Your task to perform on an android device: Search for "macbook" on newegg, select the first entry, add it to the cart, then select checkout. Image 0: 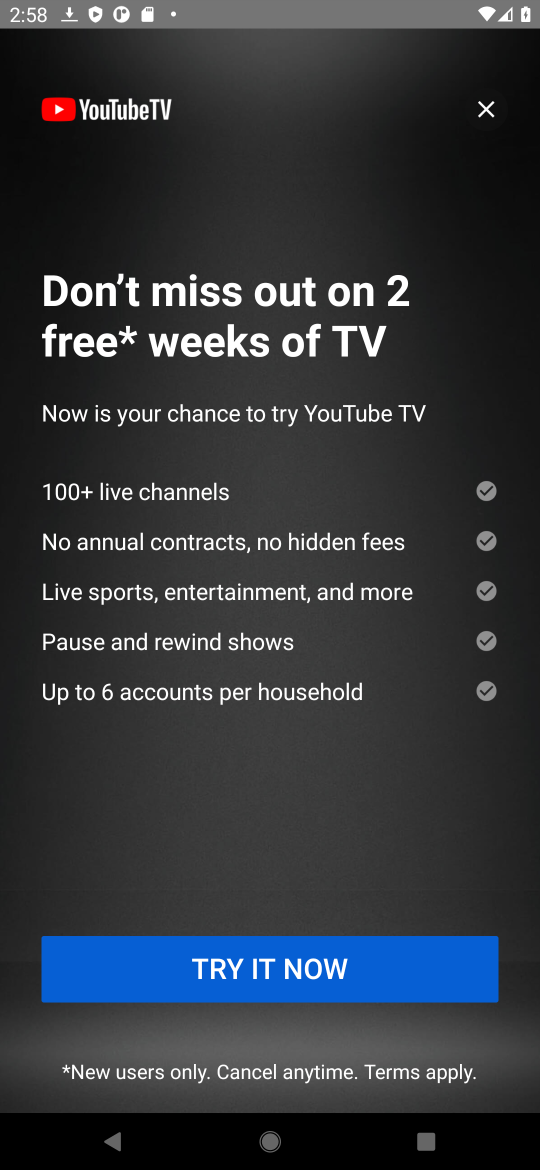
Step 0: press home button
Your task to perform on an android device: Search for "macbook" on newegg, select the first entry, add it to the cart, then select checkout. Image 1: 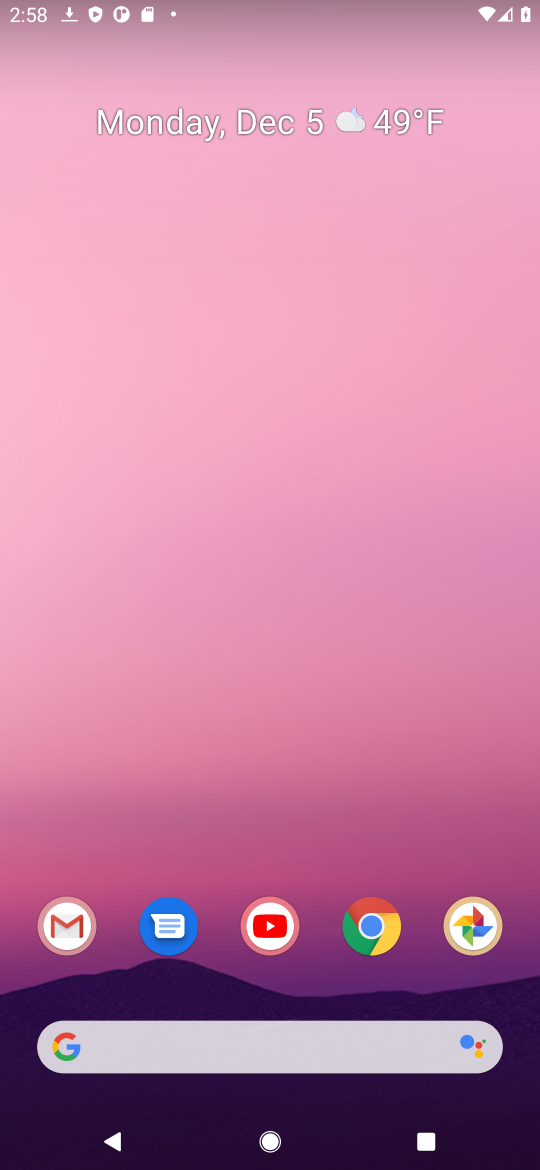
Step 1: click (378, 921)
Your task to perform on an android device: Search for "macbook" on newegg, select the first entry, add it to the cart, then select checkout. Image 2: 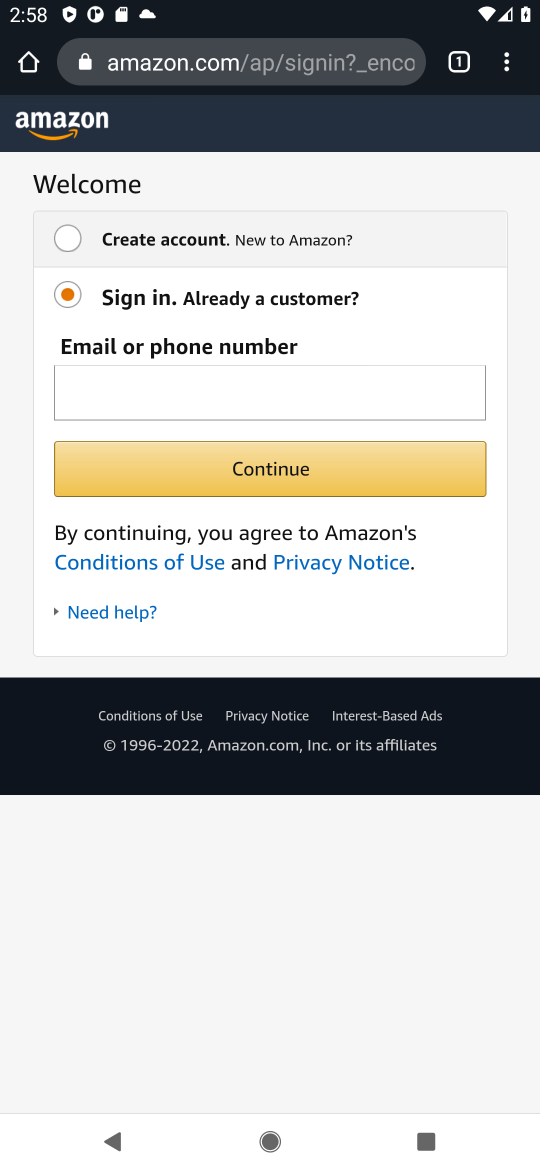
Step 2: click (283, 58)
Your task to perform on an android device: Search for "macbook" on newegg, select the first entry, add it to the cart, then select checkout. Image 3: 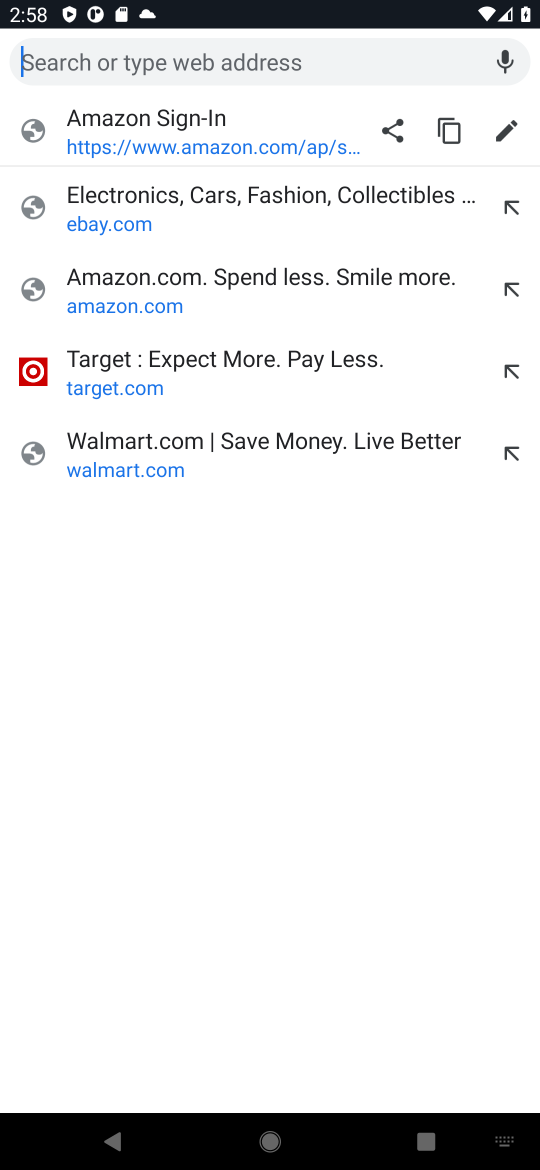
Step 3: type "newegg"
Your task to perform on an android device: Search for "macbook" on newegg, select the first entry, add it to the cart, then select checkout. Image 4: 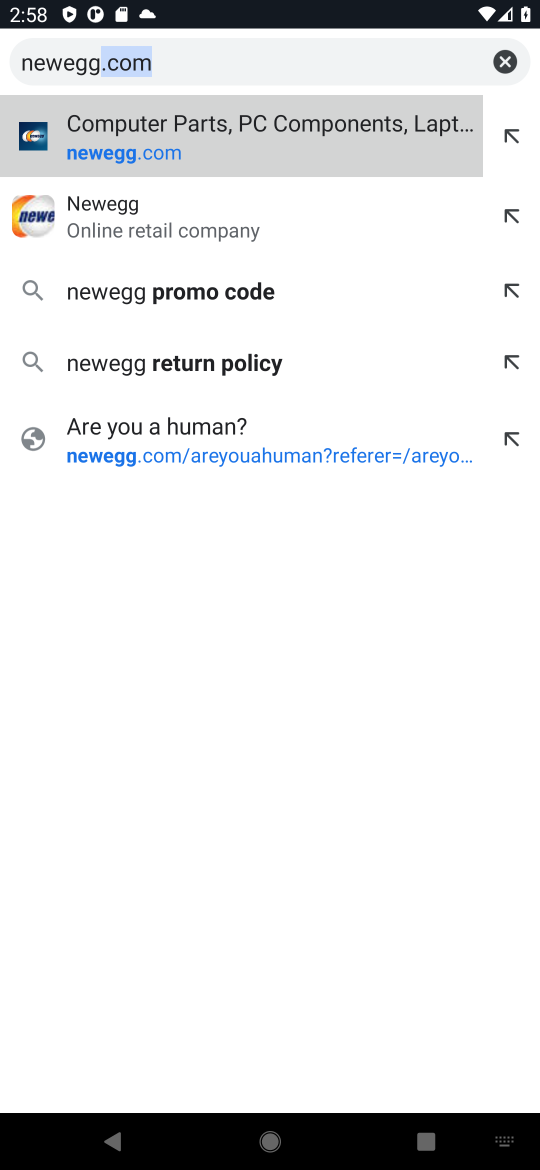
Step 4: press enter
Your task to perform on an android device: Search for "macbook" on newegg, select the first entry, add it to the cart, then select checkout. Image 5: 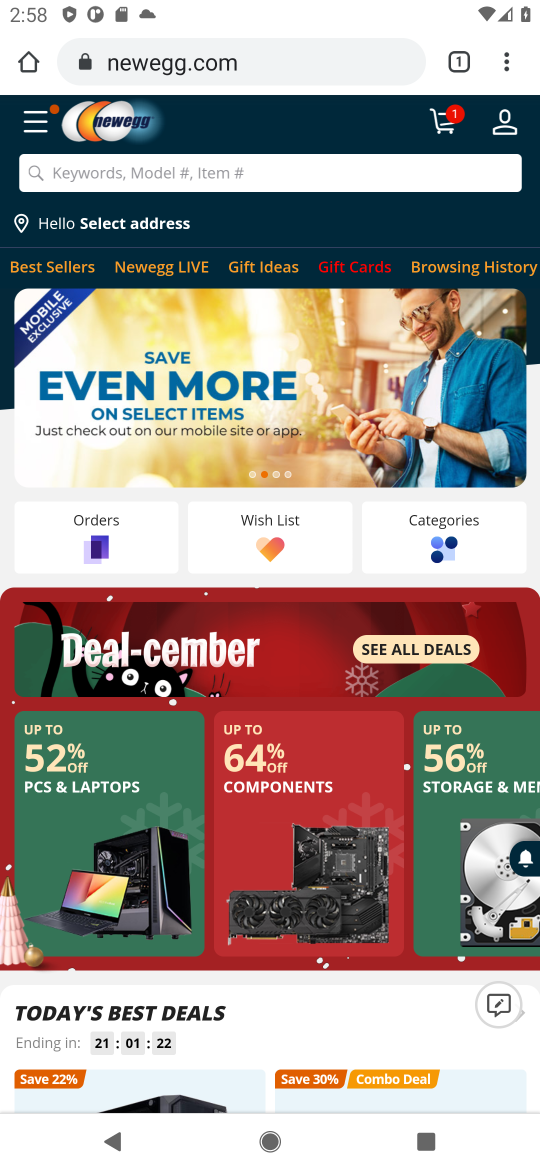
Step 5: click (243, 175)
Your task to perform on an android device: Search for "macbook" on newegg, select the first entry, add it to the cart, then select checkout. Image 6: 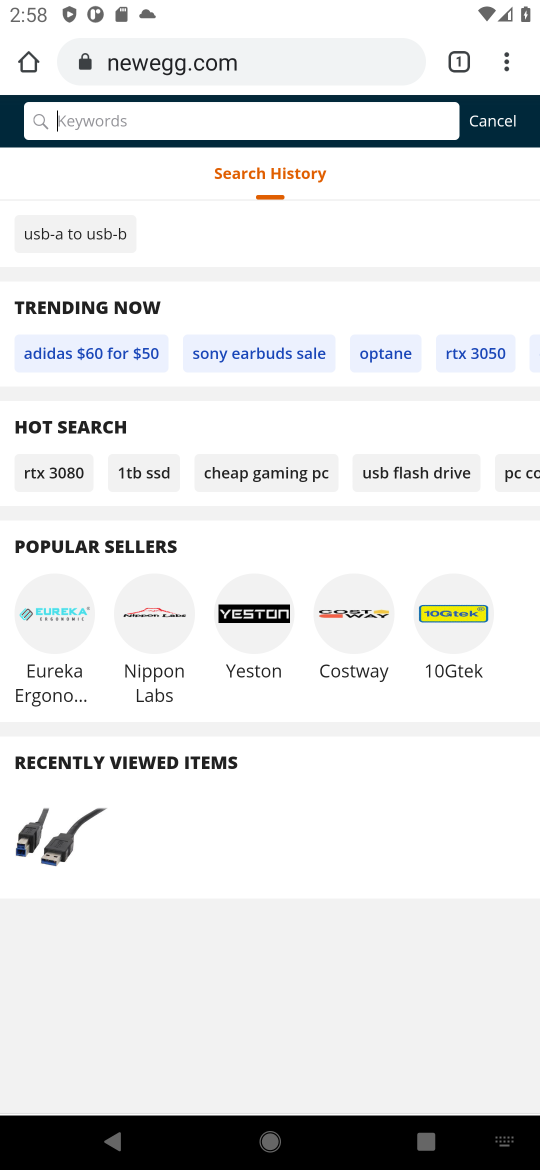
Step 6: type "macbook"
Your task to perform on an android device: Search for "macbook" on newegg, select the first entry, add it to the cart, then select checkout. Image 7: 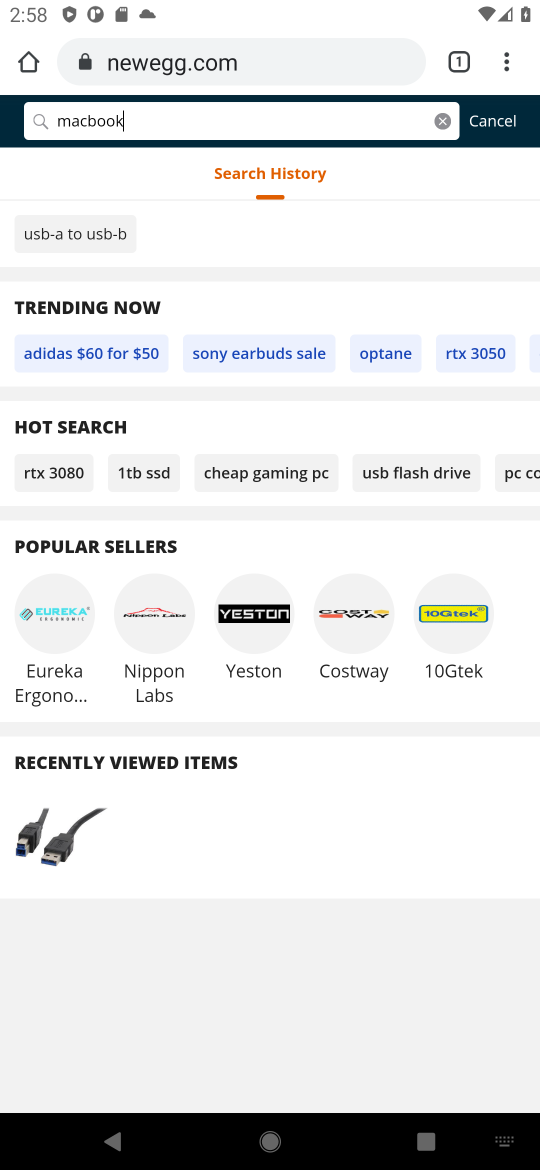
Step 7: press enter
Your task to perform on an android device: Search for "macbook" on newegg, select the first entry, add it to the cart, then select checkout. Image 8: 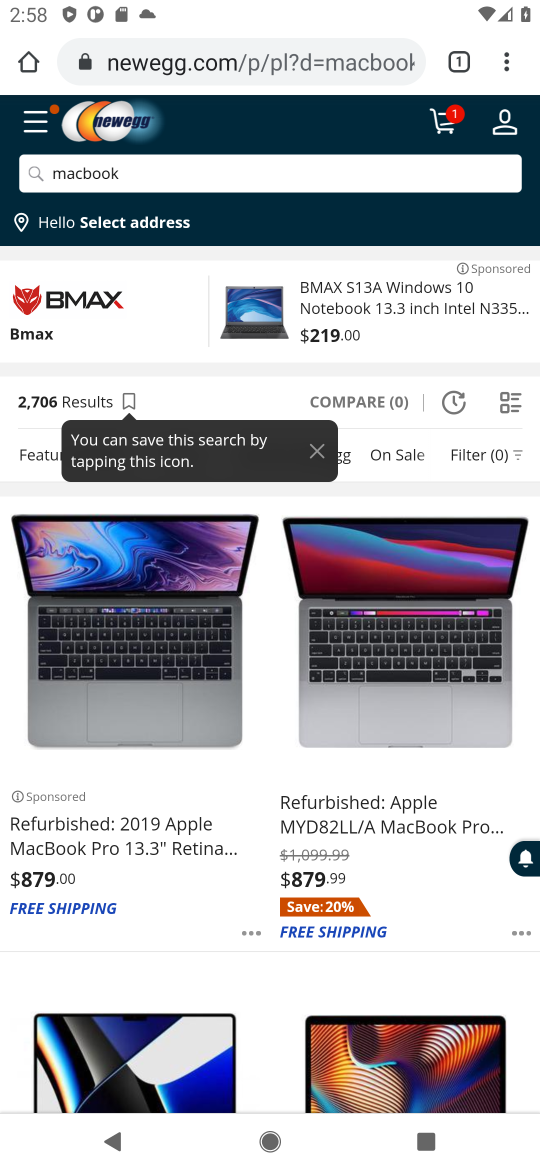
Step 8: drag from (388, 721) to (463, 214)
Your task to perform on an android device: Search for "macbook" on newegg, select the first entry, add it to the cart, then select checkout. Image 9: 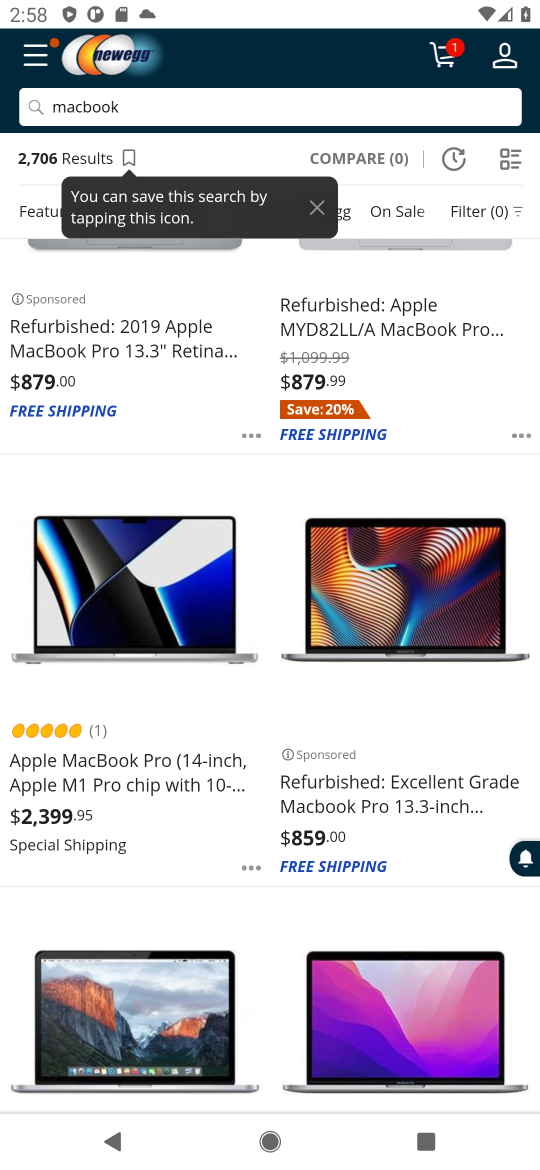
Step 9: drag from (275, 816) to (393, 283)
Your task to perform on an android device: Search for "macbook" on newegg, select the first entry, add it to the cart, then select checkout. Image 10: 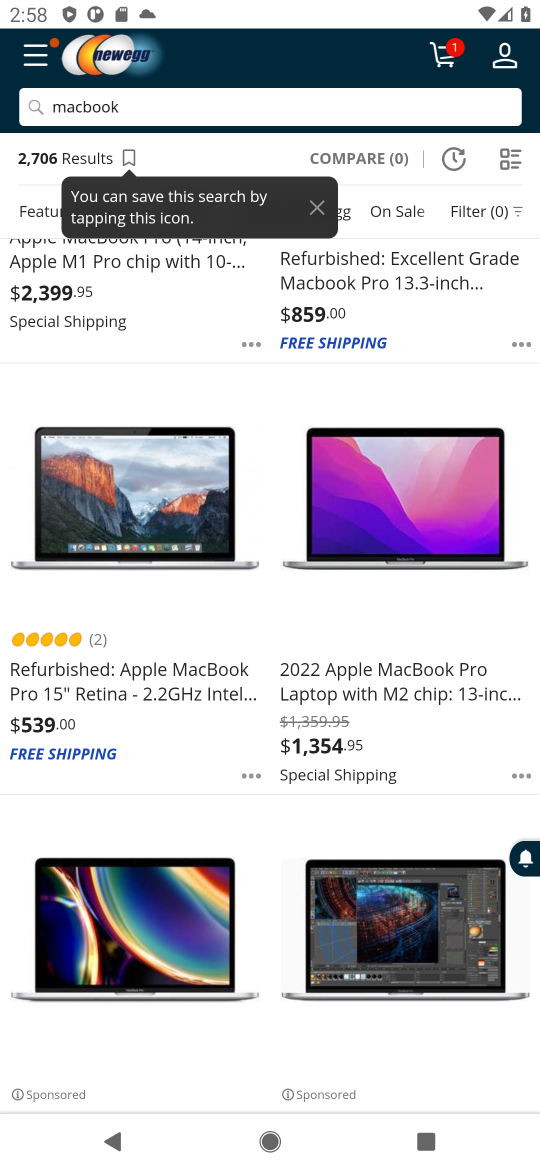
Step 10: click (421, 514)
Your task to perform on an android device: Search for "macbook" on newegg, select the first entry, add it to the cart, then select checkout. Image 11: 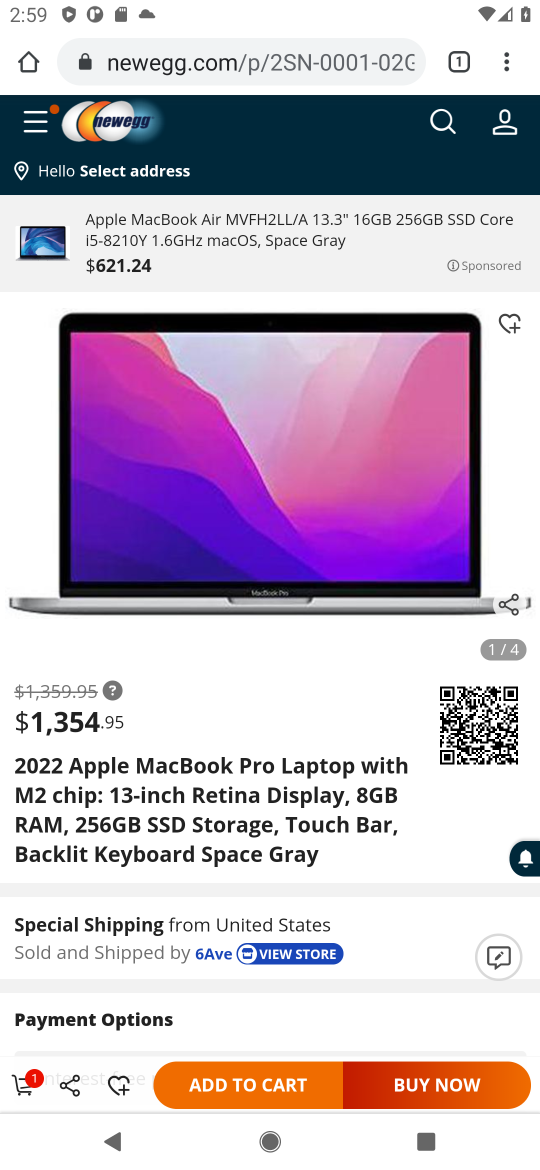
Step 11: click (230, 1082)
Your task to perform on an android device: Search for "macbook" on newegg, select the first entry, add it to the cart, then select checkout. Image 12: 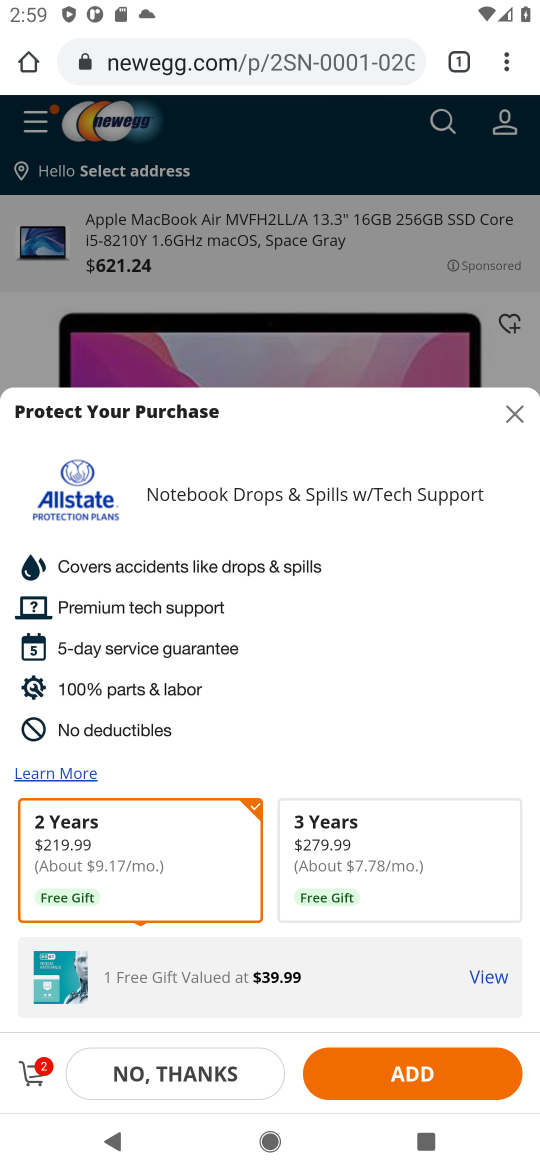
Step 12: click (28, 1074)
Your task to perform on an android device: Search for "macbook" on newegg, select the first entry, add it to the cart, then select checkout. Image 13: 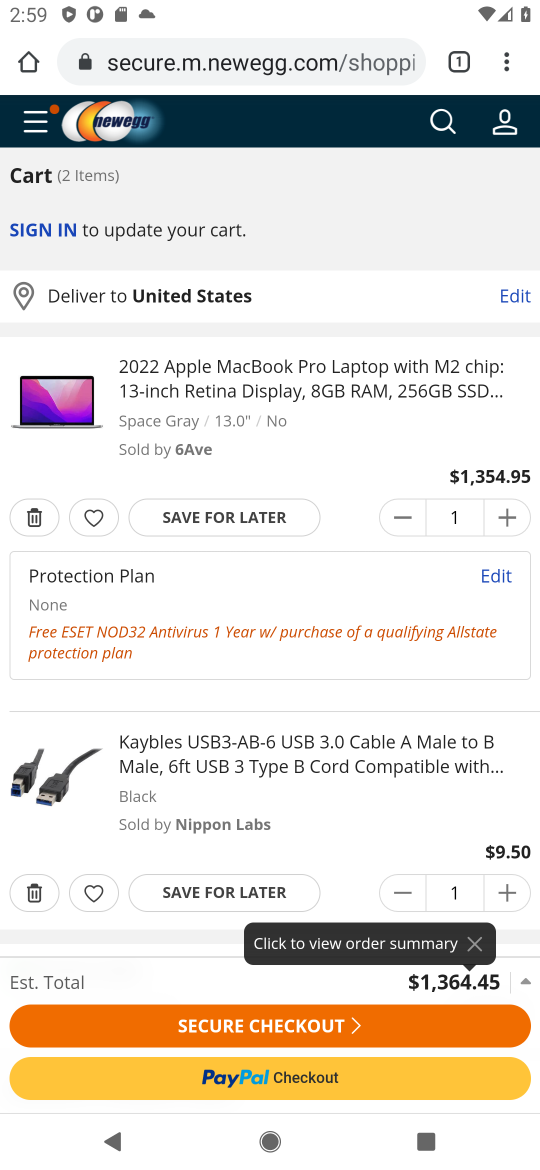
Step 13: click (316, 1023)
Your task to perform on an android device: Search for "macbook" on newegg, select the first entry, add it to the cart, then select checkout. Image 14: 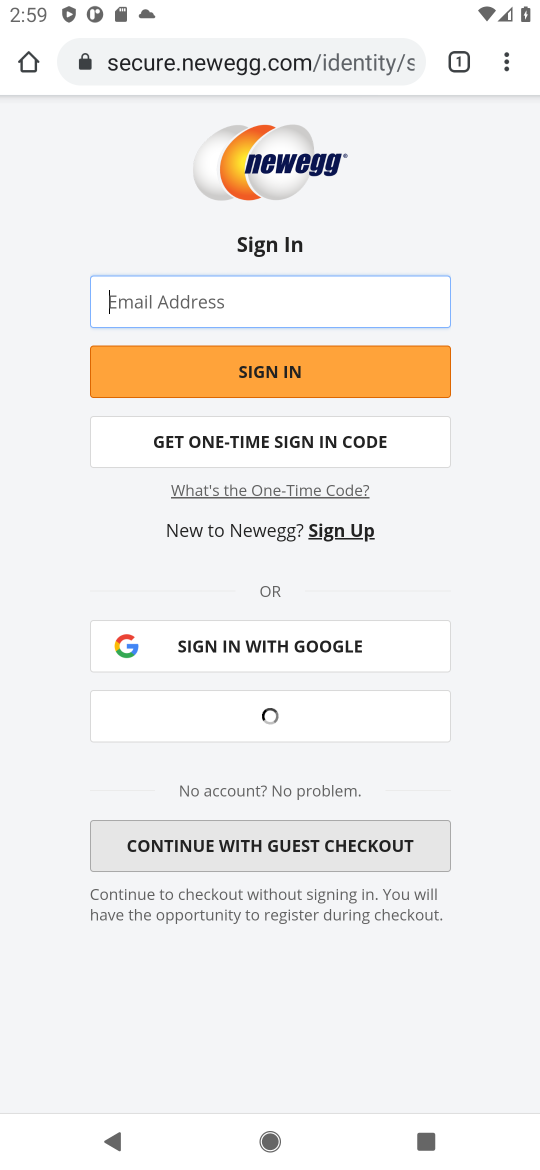
Step 14: task complete